Your task to perform on an android device: open app "Nova Launcher" Image 0: 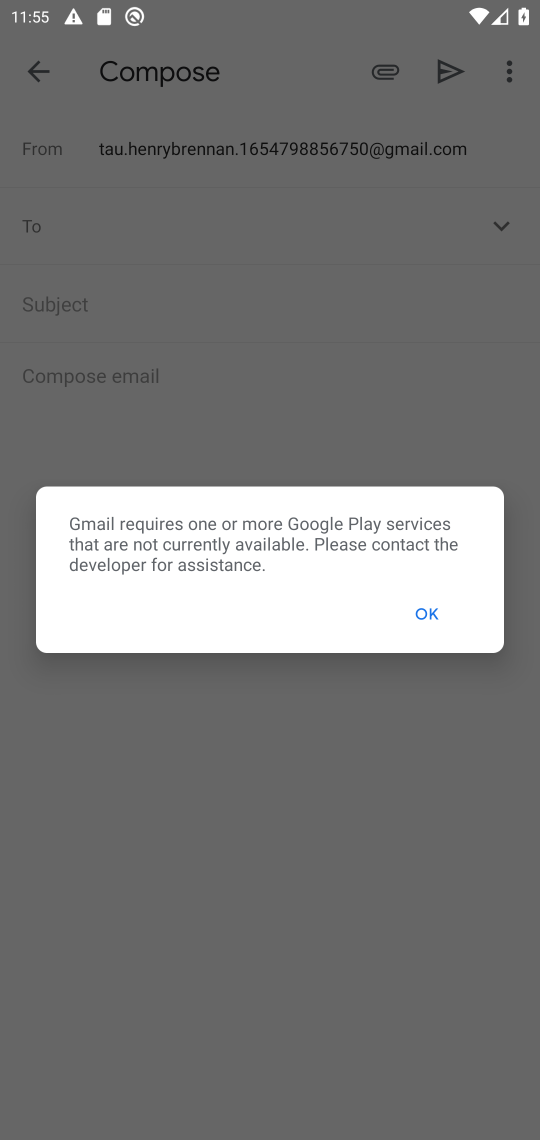
Step 0: press home button
Your task to perform on an android device: open app "Nova Launcher" Image 1: 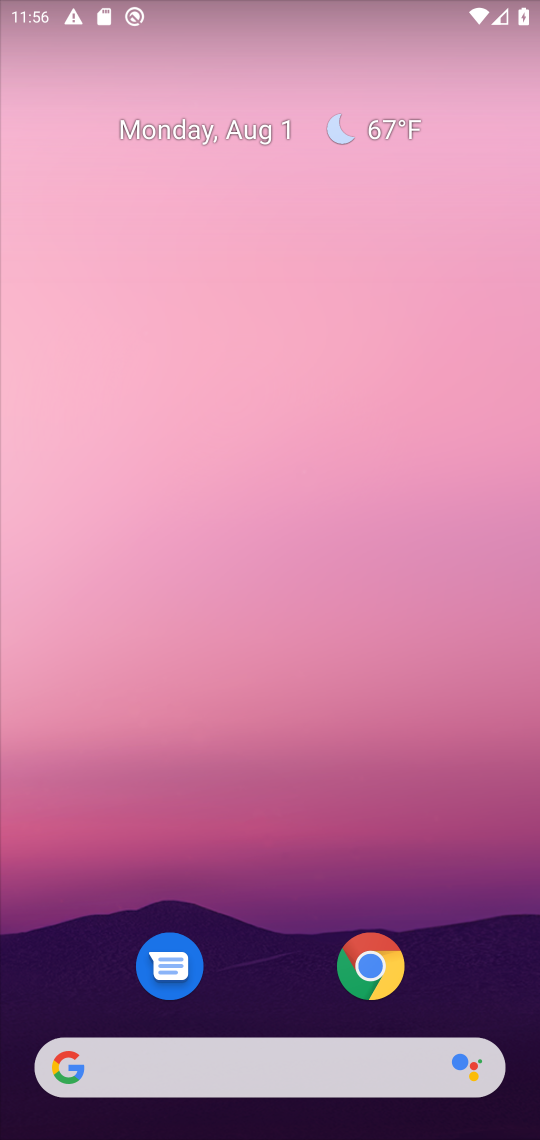
Step 1: drag from (468, 952) to (458, 94)
Your task to perform on an android device: open app "Nova Launcher" Image 2: 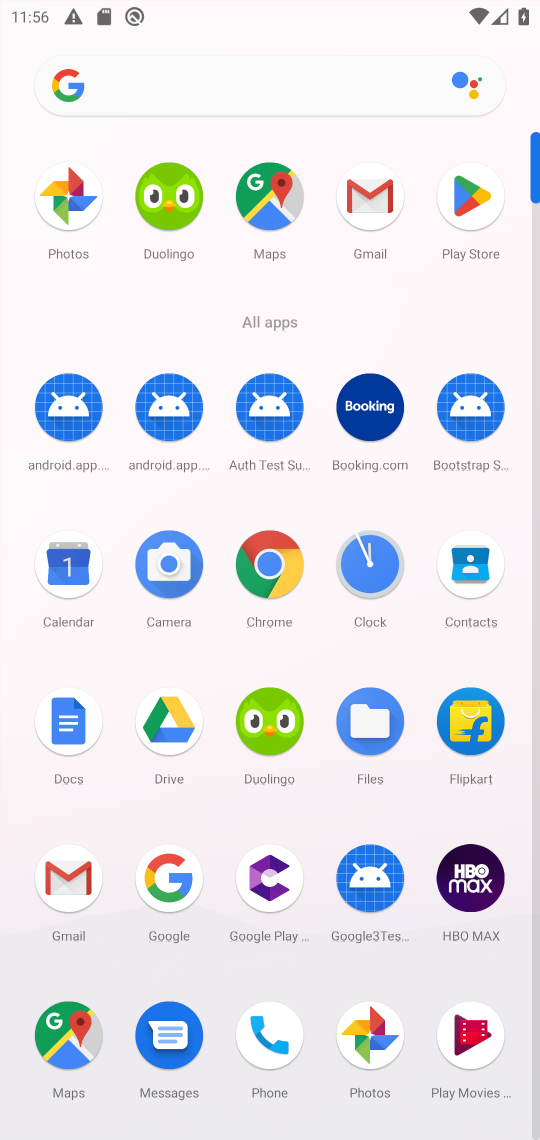
Step 2: click (468, 208)
Your task to perform on an android device: open app "Nova Launcher" Image 3: 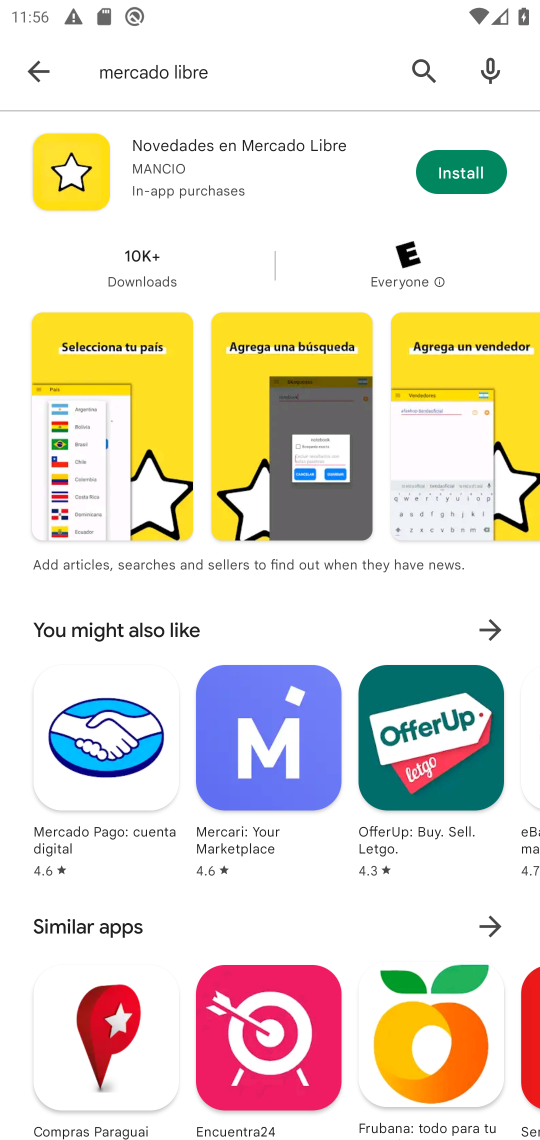
Step 3: click (413, 68)
Your task to perform on an android device: open app "Nova Launcher" Image 4: 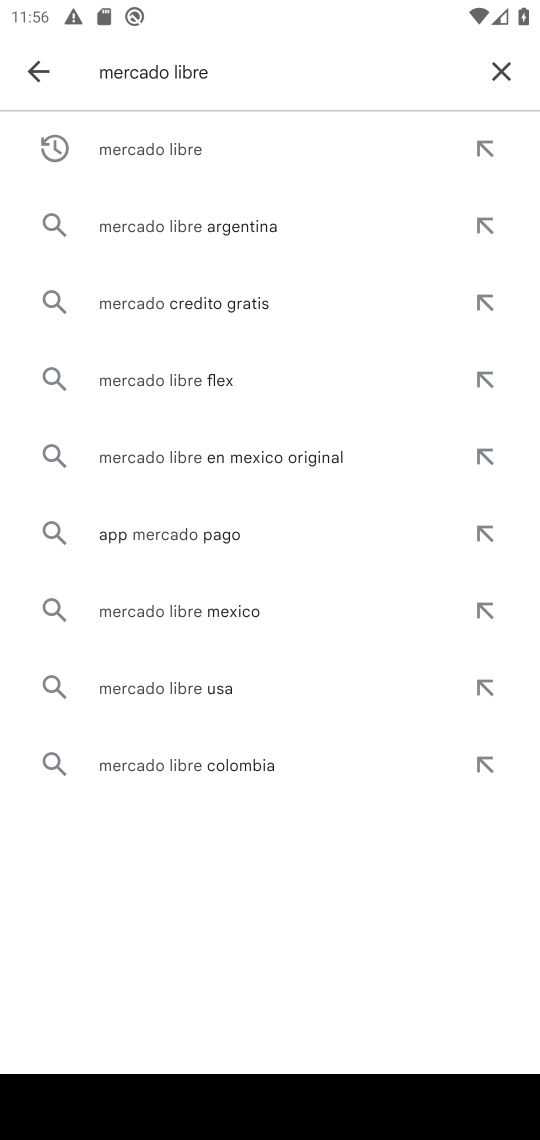
Step 4: click (507, 59)
Your task to perform on an android device: open app "Nova Launcher" Image 5: 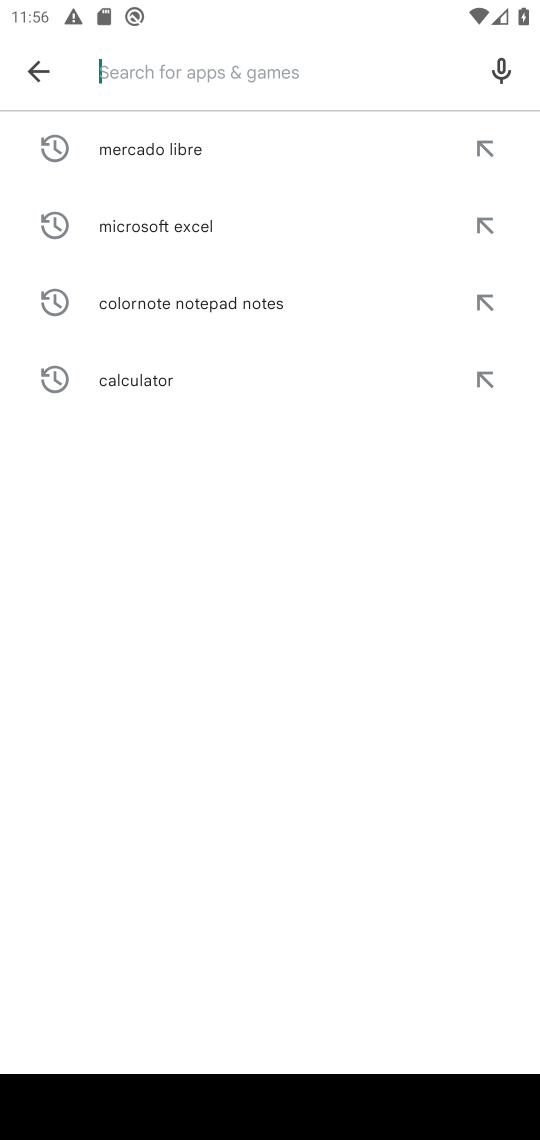
Step 5: click (373, 95)
Your task to perform on an android device: open app "Nova Launcher" Image 6: 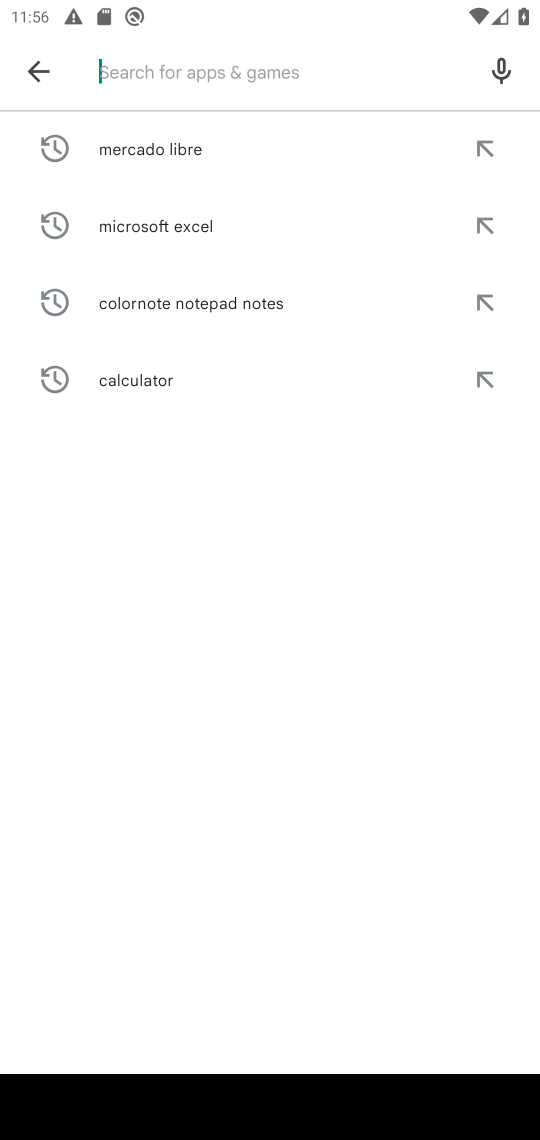
Step 6: type "Nova Launcher"
Your task to perform on an android device: open app "Nova Launcher" Image 7: 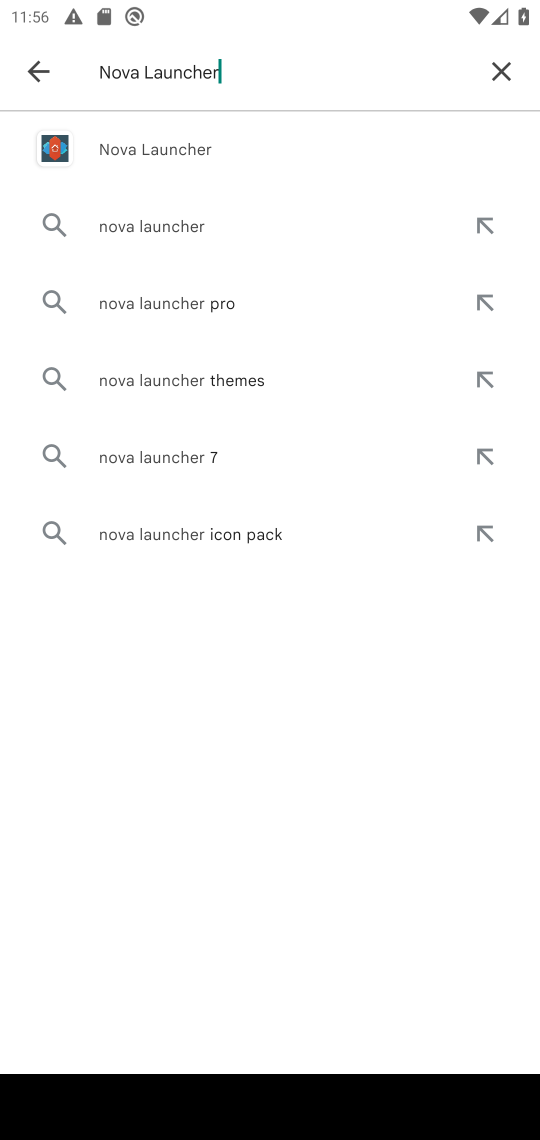
Step 7: click (196, 142)
Your task to perform on an android device: open app "Nova Launcher" Image 8: 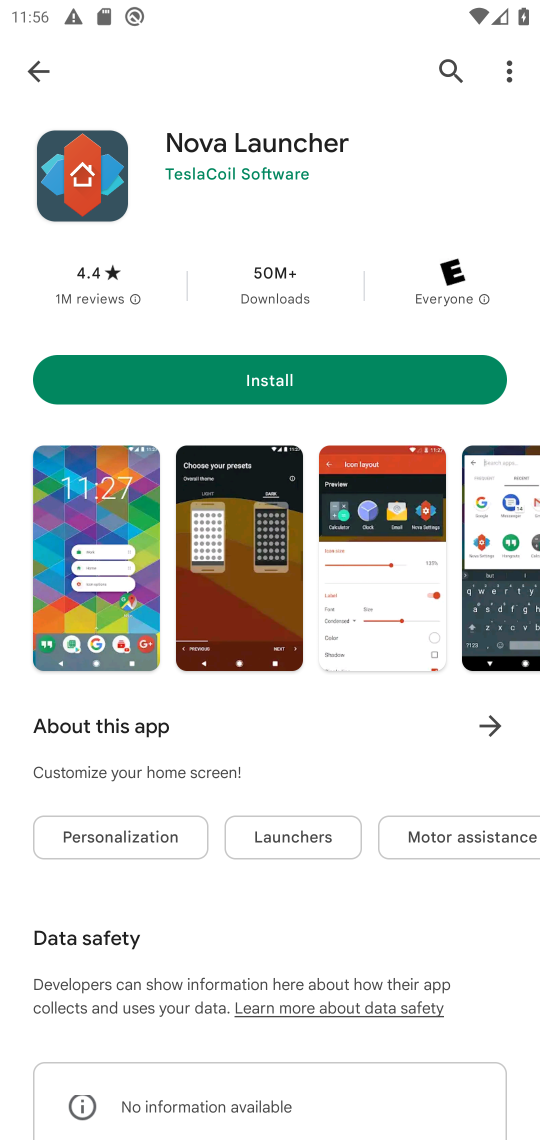
Step 8: task complete